Your task to perform on an android device: Open notification settings Image 0: 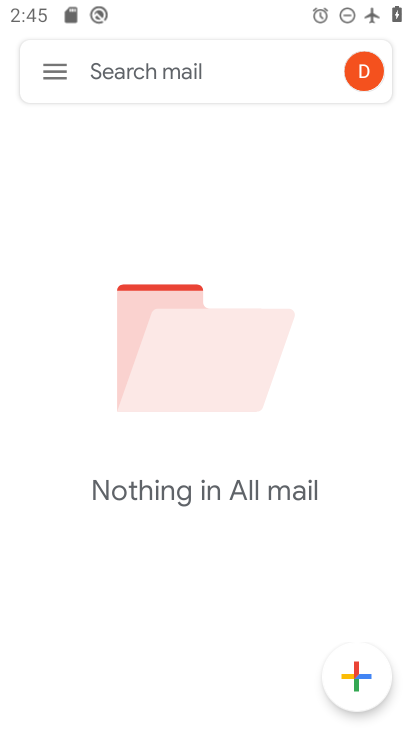
Step 0: press home button
Your task to perform on an android device: Open notification settings Image 1: 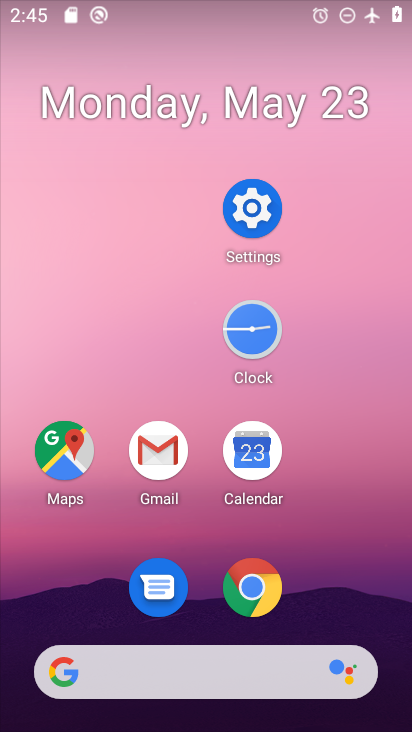
Step 1: click (237, 197)
Your task to perform on an android device: Open notification settings Image 2: 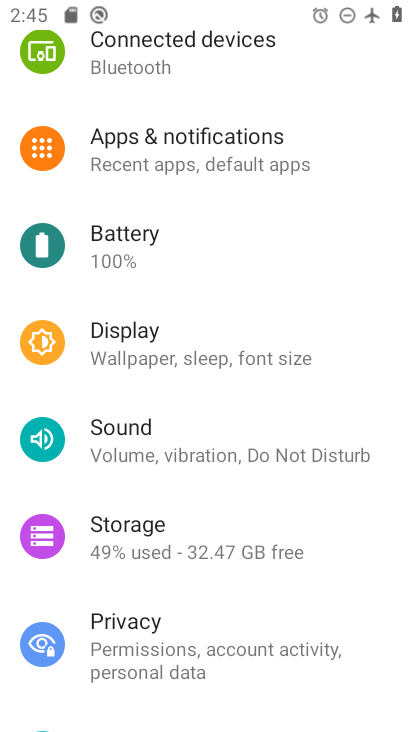
Step 2: click (271, 187)
Your task to perform on an android device: Open notification settings Image 3: 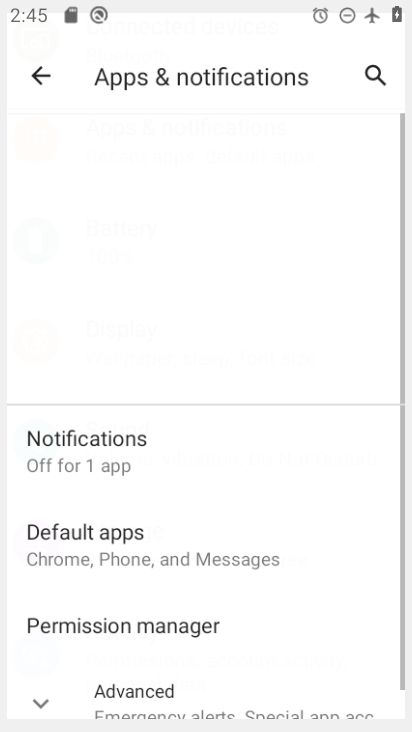
Step 3: task complete